Your task to perform on an android device: change the upload size in google photos Image 0: 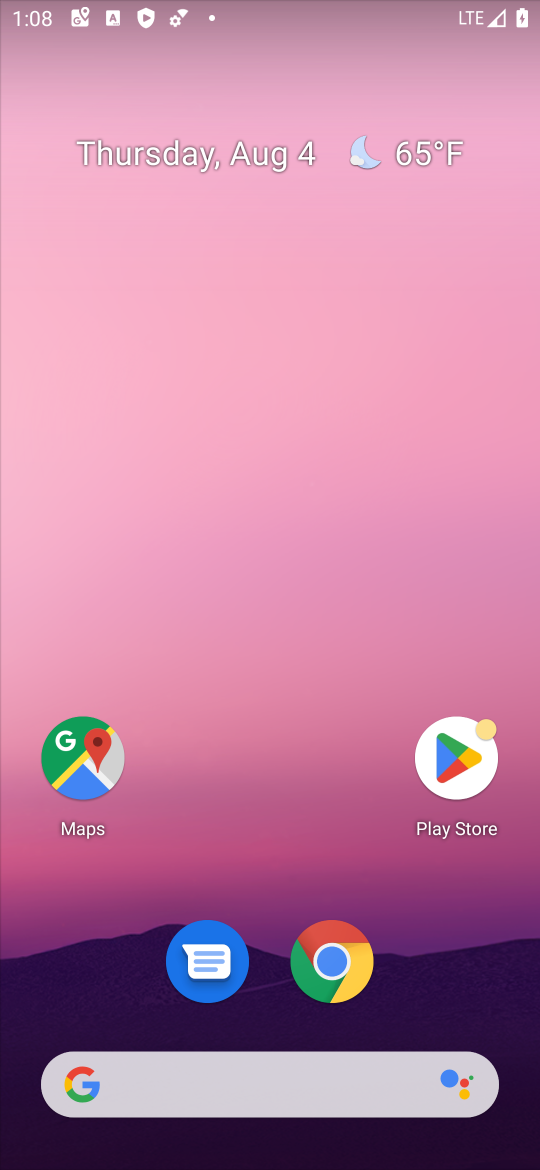
Step 0: drag from (323, 836) to (423, 0)
Your task to perform on an android device: change the upload size in google photos Image 1: 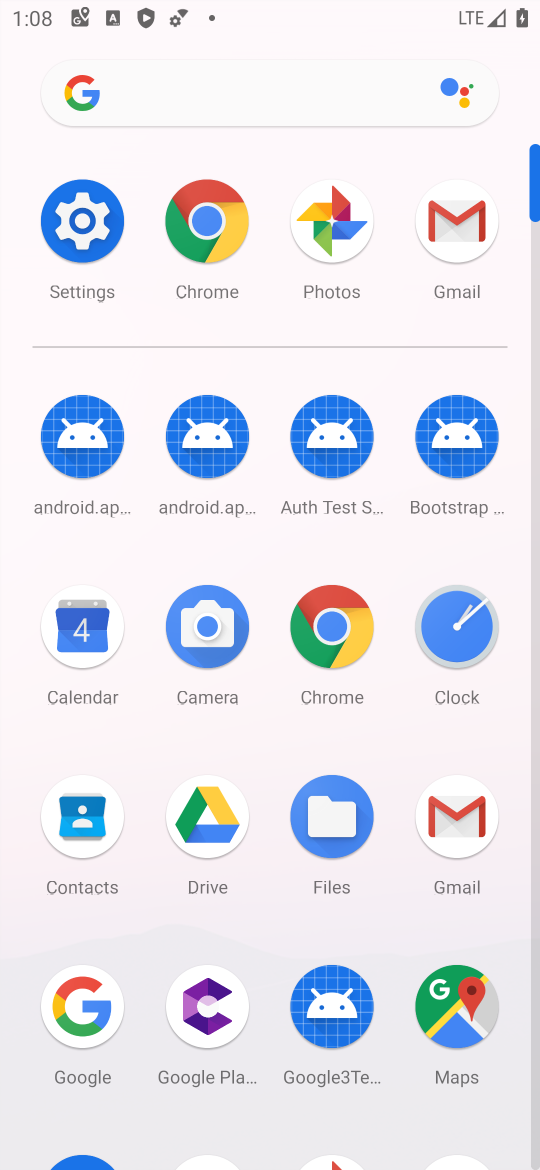
Step 1: click (345, 233)
Your task to perform on an android device: change the upload size in google photos Image 2: 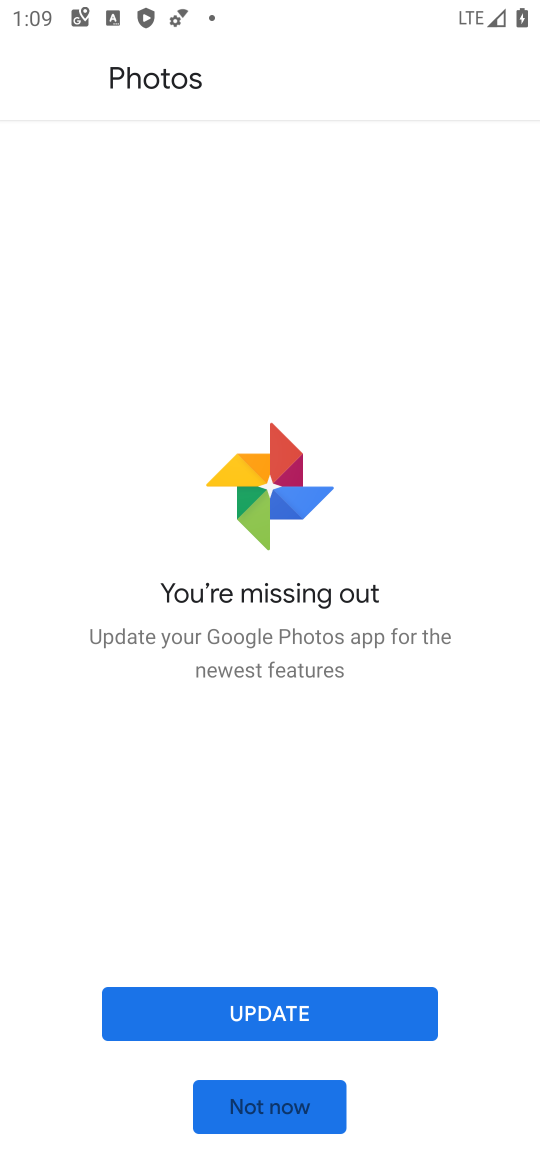
Step 2: click (313, 1108)
Your task to perform on an android device: change the upload size in google photos Image 3: 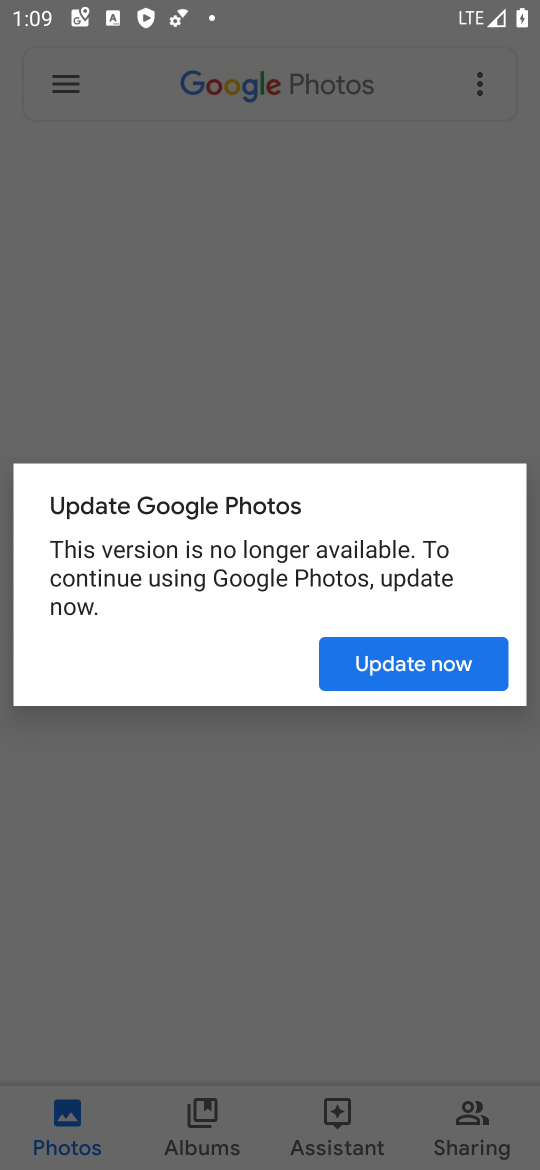
Step 3: click (458, 664)
Your task to perform on an android device: change the upload size in google photos Image 4: 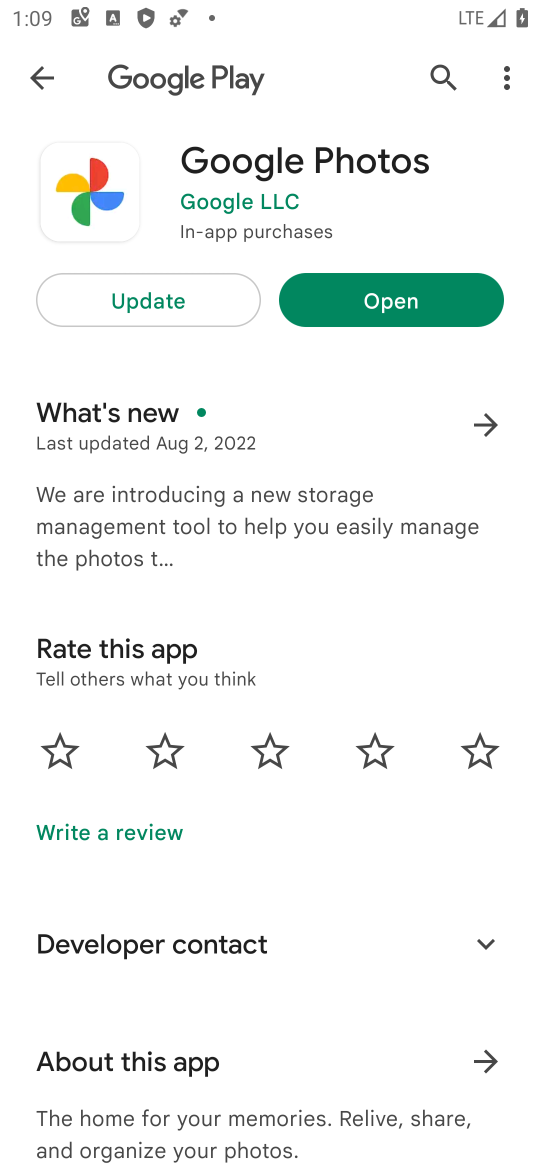
Step 4: click (464, 308)
Your task to perform on an android device: change the upload size in google photos Image 5: 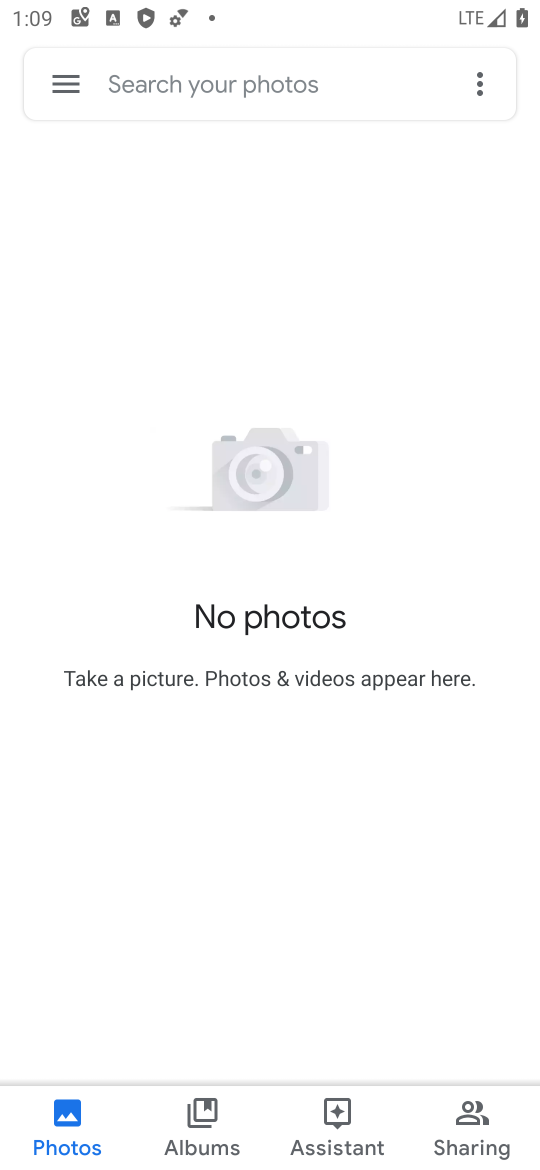
Step 5: click (63, 80)
Your task to perform on an android device: change the upload size in google photos Image 6: 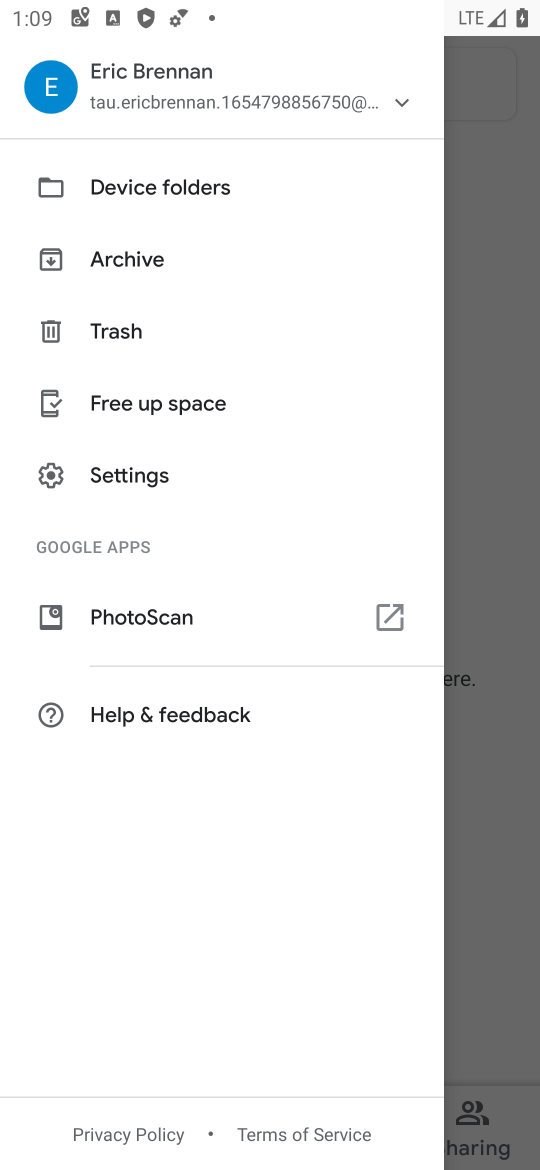
Step 6: click (133, 474)
Your task to perform on an android device: change the upload size in google photos Image 7: 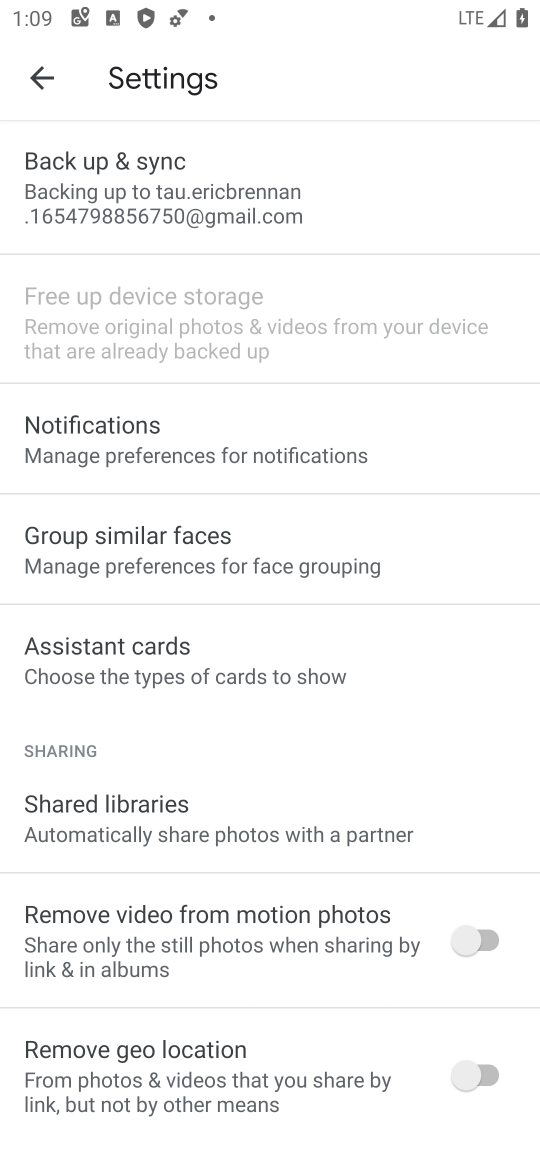
Step 7: click (207, 183)
Your task to perform on an android device: change the upload size in google photos Image 8: 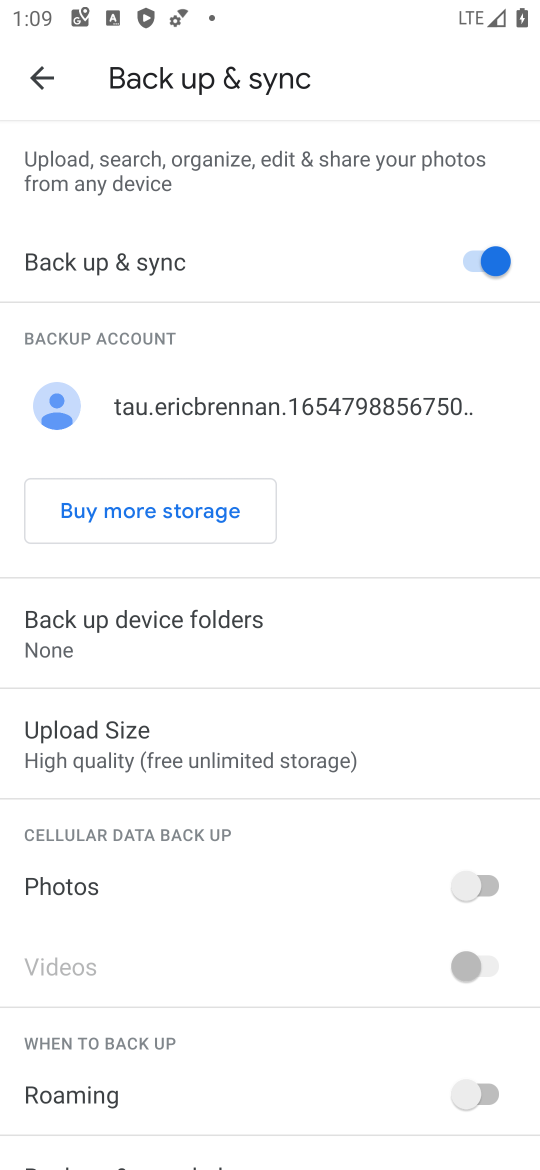
Step 8: click (139, 727)
Your task to perform on an android device: change the upload size in google photos Image 9: 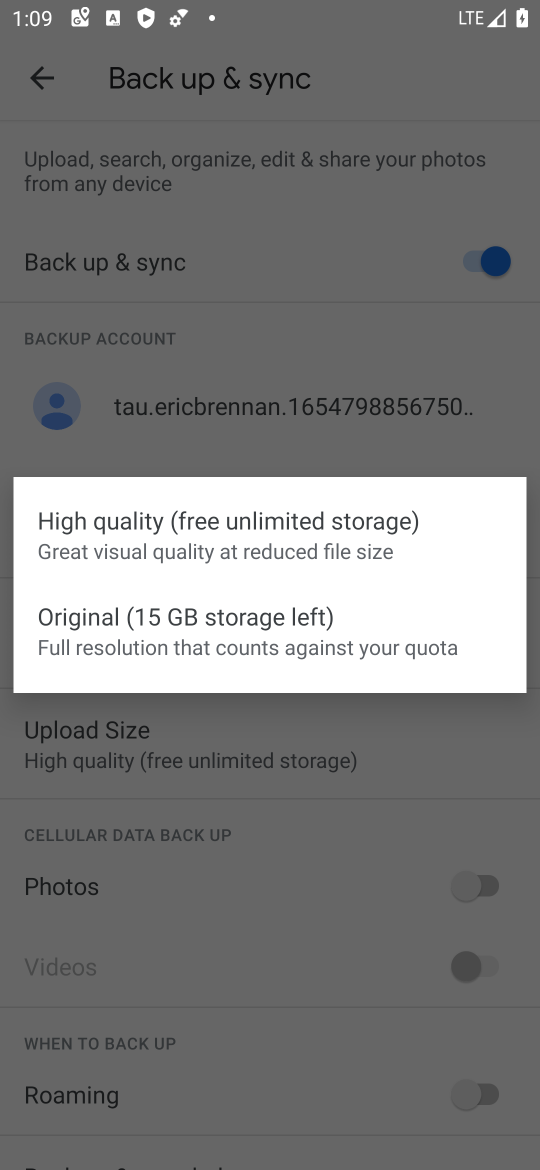
Step 9: click (163, 635)
Your task to perform on an android device: change the upload size in google photos Image 10: 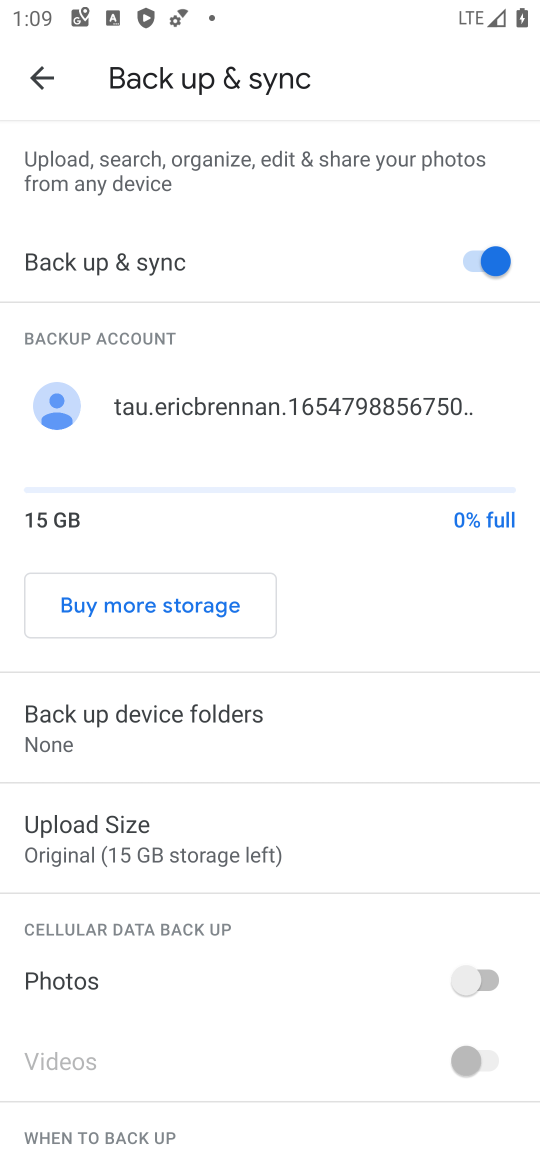
Step 10: task complete